Your task to perform on an android device: Check the weather Image 0: 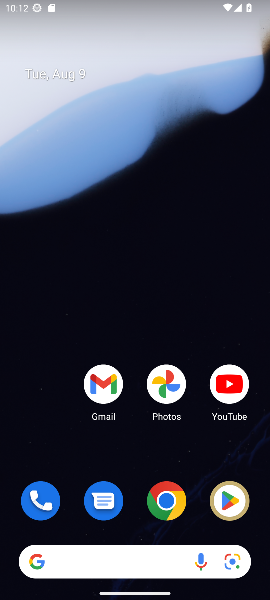
Step 0: click (101, 558)
Your task to perform on an android device: Check the weather Image 1: 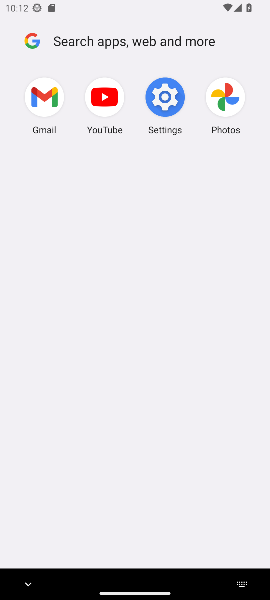
Step 1: click (124, 37)
Your task to perform on an android device: Check the weather Image 2: 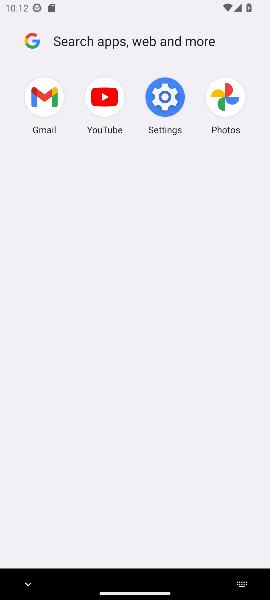
Step 2: type "weather"
Your task to perform on an android device: Check the weather Image 3: 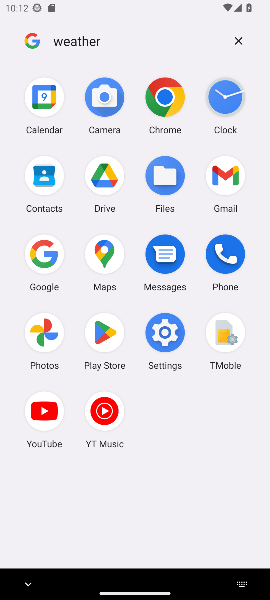
Step 3: click (43, 262)
Your task to perform on an android device: Check the weather Image 4: 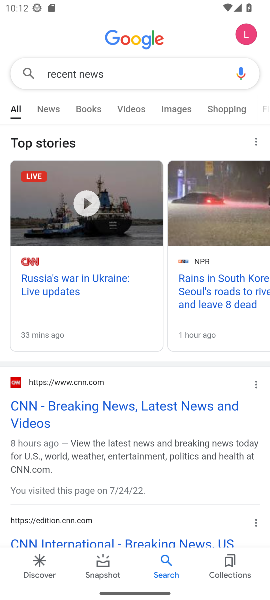
Step 4: click (125, 73)
Your task to perform on an android device: Check the weather Image 5: 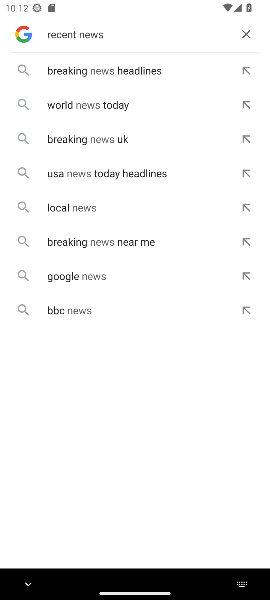
Step 5: click (249, 36)
Your task to perform on an android device: Check the weather Image 6: 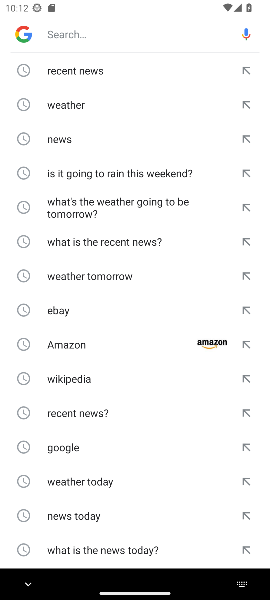
Step 6: click (68, 107)
Your task to perform on an android device: Check the weather Image 7: 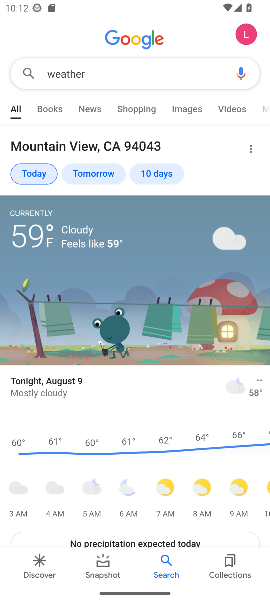
Step 7: task complete